Your task to perform on an android device: Show me popular videos on Youtube Image 0: 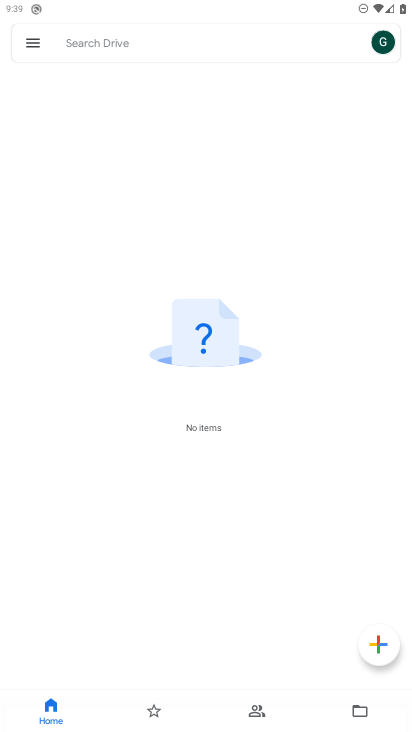
Step 0: press home button
Your task to perform on an android device: Show me popular videos on Youtube Image 1: 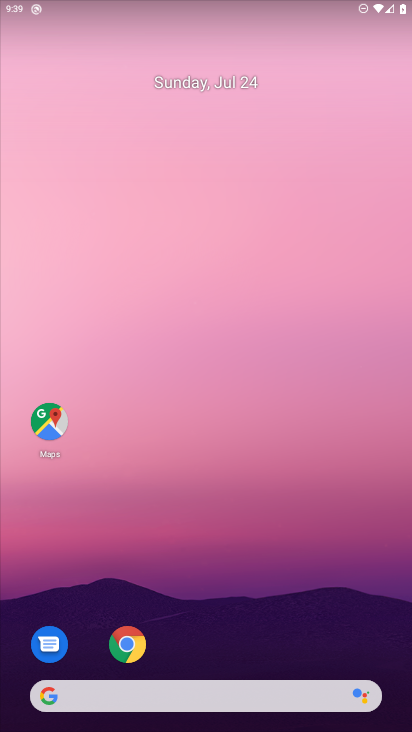
Step 1: drag from (314, 642) to (316, 152)
Your task to perform on an android device: Show me popular videos on Youtube Image 2: 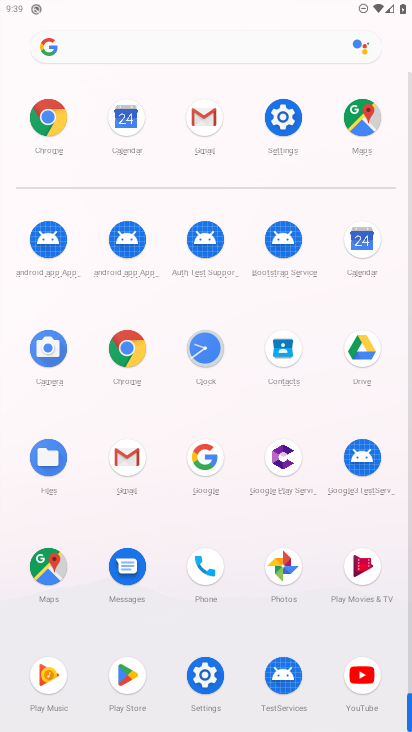
Step 2: click (360, 669)
Your task to perform on an android device: Show me popular videos on Youtube Image 3: 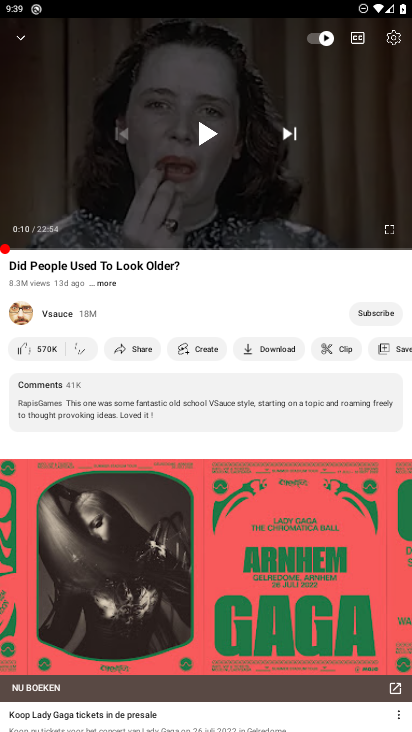
Step 3: press back button
Your task to perform on an android device: Show me popular videos on Youtube Image 4: 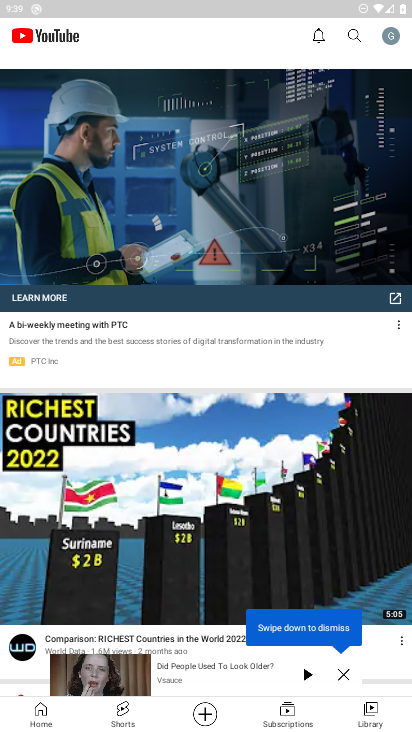
Step 4: click (353, 33)
Your task to perform on an android device: Show me popular videos on Youtube Image 5: 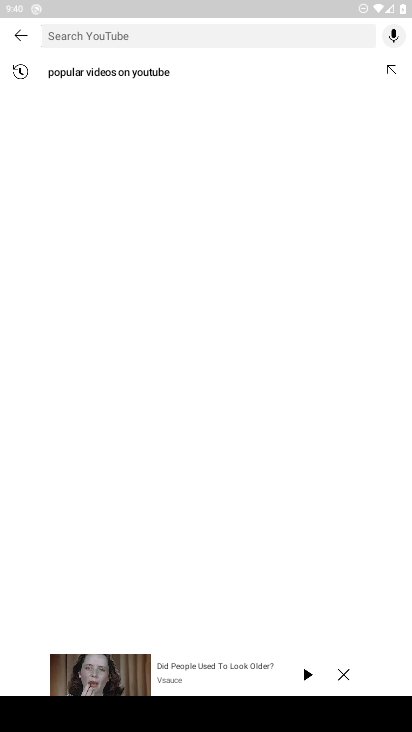
Step 5: type " popular videos "
Your task to perform on an android device: Show me popular videos on Youtube Image 6: 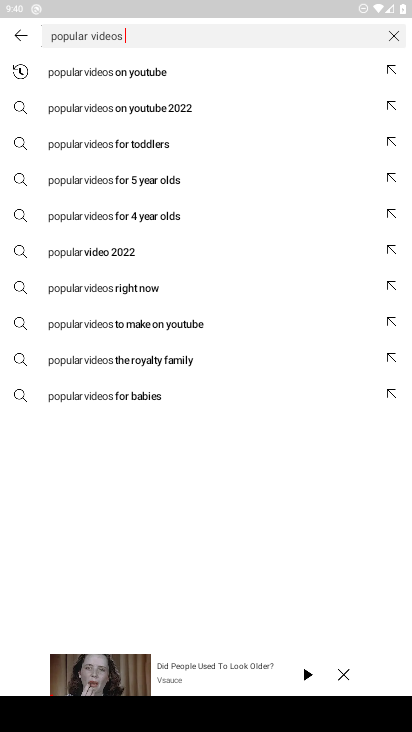
Step 6: click (131, 76)
Your task to perform on an android device: Show me popular videos on Youtube Image 7: 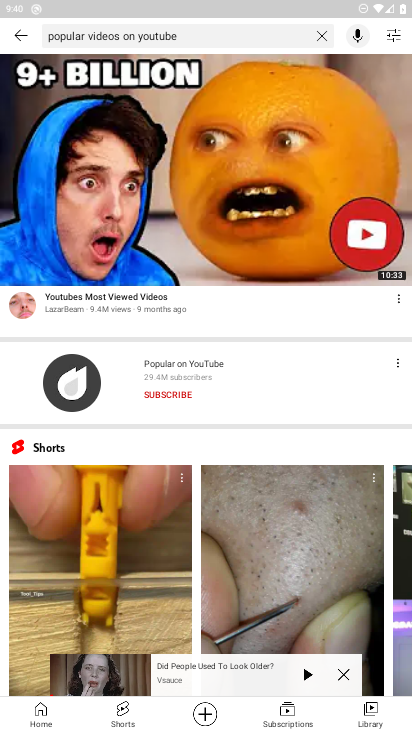
Step 7: task complete